Your task to perform on an android device: toggle translation in the chrome app Image 0: 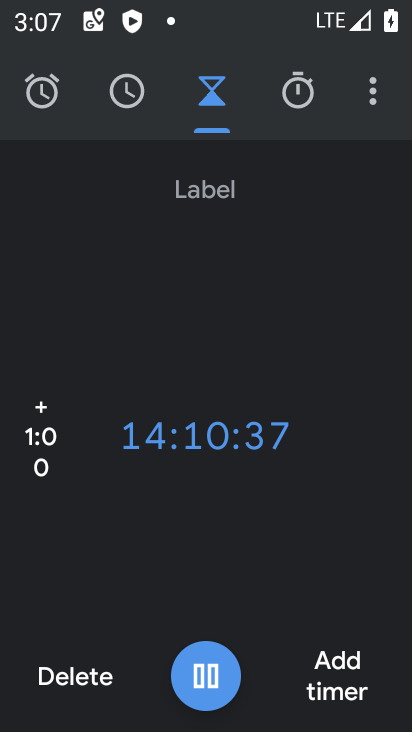
Step 0: press home button
Your task to perform on an android device: toggle translation in the chrome app Image 1: 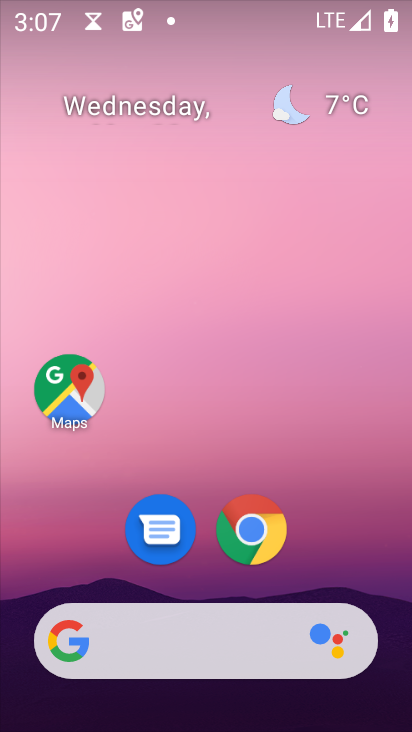
Step 1: drag from (375, 480) to (335, 11)
Your task to perform on an android device: toggle translation in the chrome app Image 2: 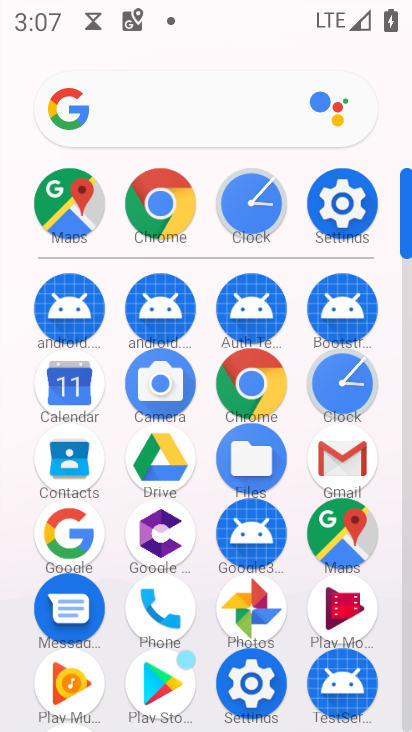
Step 2: click (158, 216)
Your task to perform on an android device: toggle translation in the chrome app Image 3: 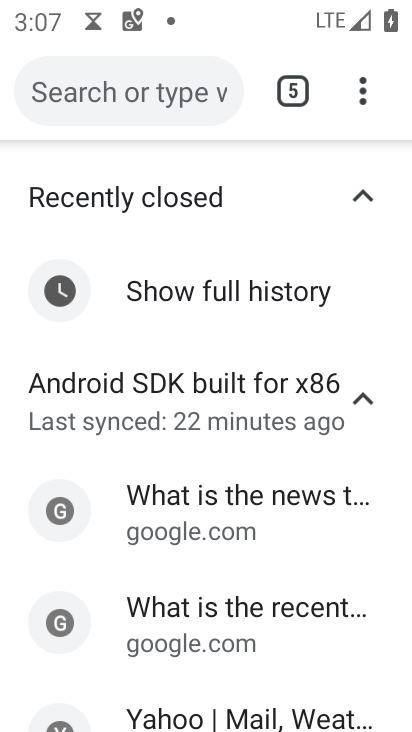
Step 3: drag from (351, 87) to (105, 535)
Your task to perform on an android device: toggle translation in the chrome app Image 4: 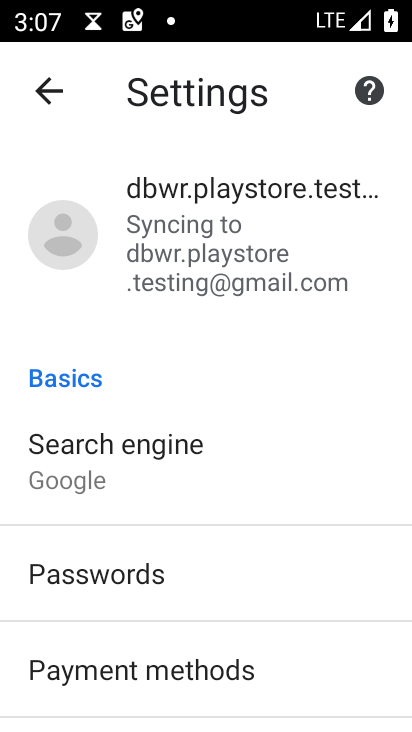
Step 4: drag from (70, 585) to (128, 232)
Your task to perform on an android device: toggle translation in the chrome app Image 5: 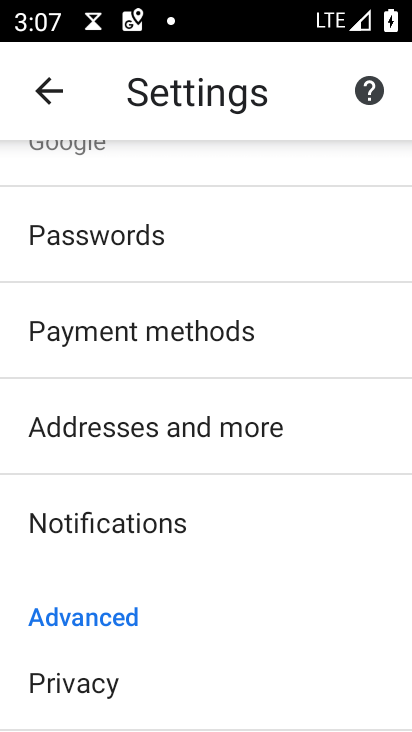
Step 5: drag from (140, 602) to (222, 220)
Your task to perform on an android device: toggle translation in the chrome app Image 6: 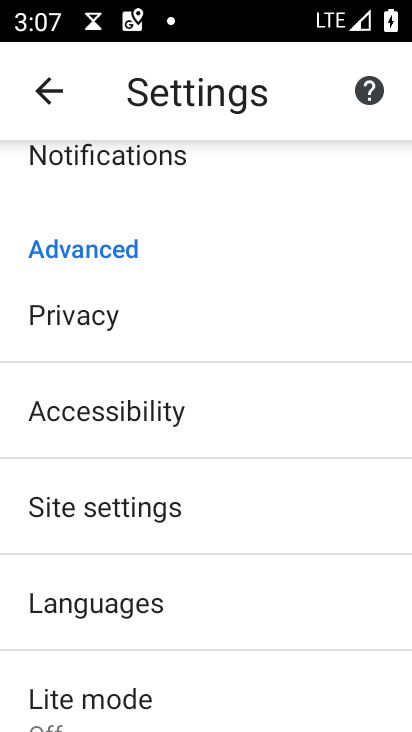
Step 6: drag from (136, 610) to (202, 251)
Your task to perform on an android device: toggle translation in the chrome app Image 7: 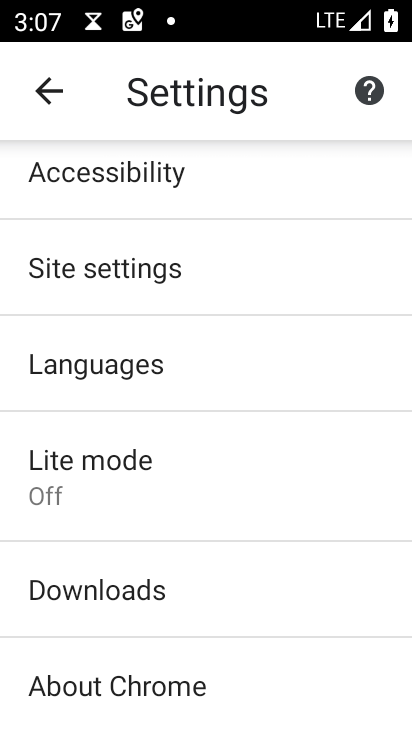
Step 7: click (128, 350)
Your task to perform on an android device: toggle translation in the chrome app Image 8: 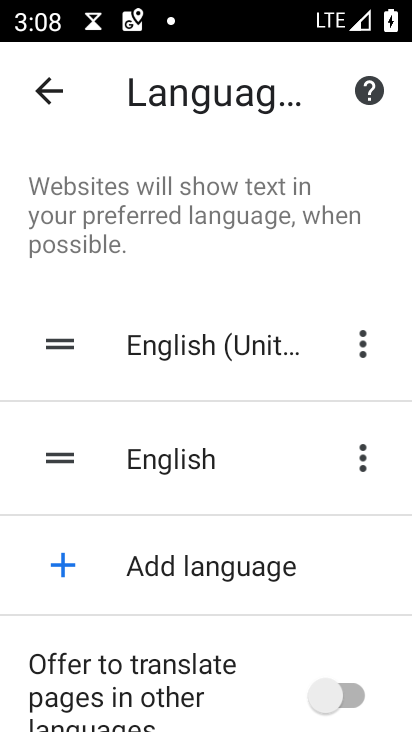
Step 8: drag from (163, 442) to (172, 164)
Your task to perform on an android device: toggle translation in the chrome app Image 9: 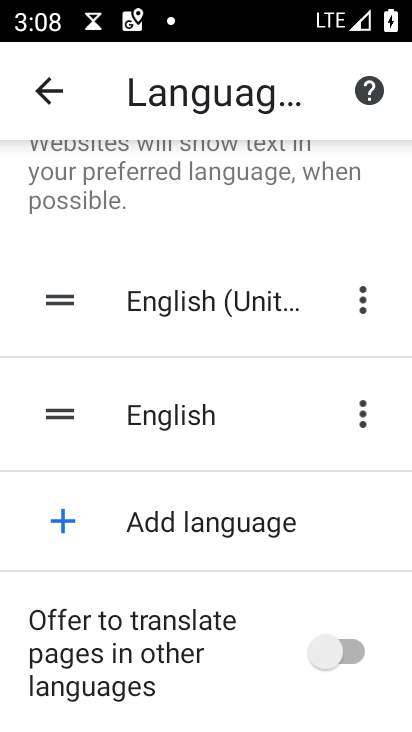
Step 9: click (319, 657)
Your task to perform on an android device: toggle translation in the chrome app Image 10: 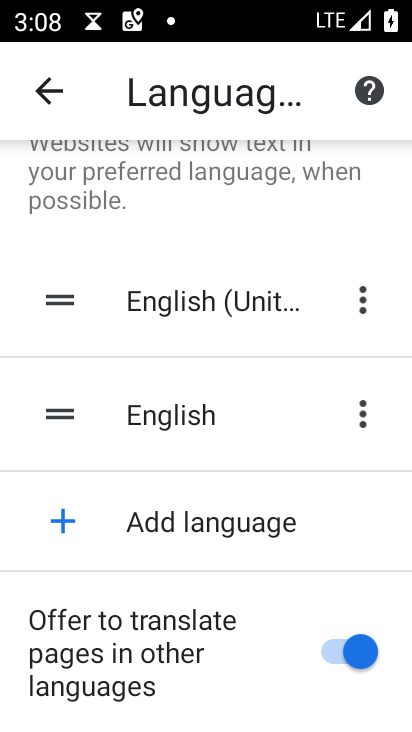
Step 10: task complete